Your task to perform on an android device: Open Youtube and go to "Your channel" Image 0: 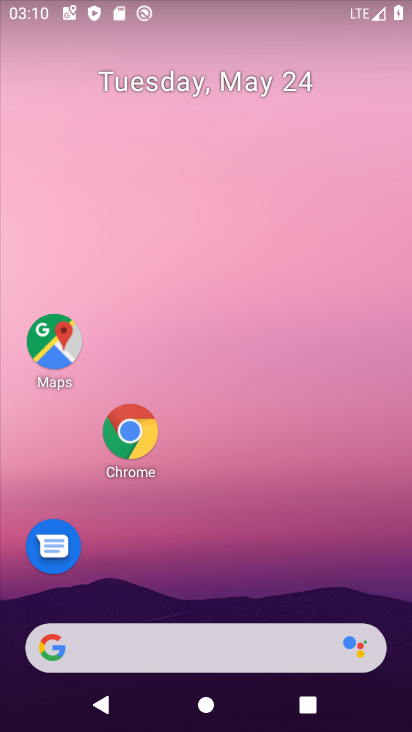
Step 0: drag from (205, 595) to (310, 209)
Your task to perform on an android device: Open Youtube and go to "Your channel" Image 1: 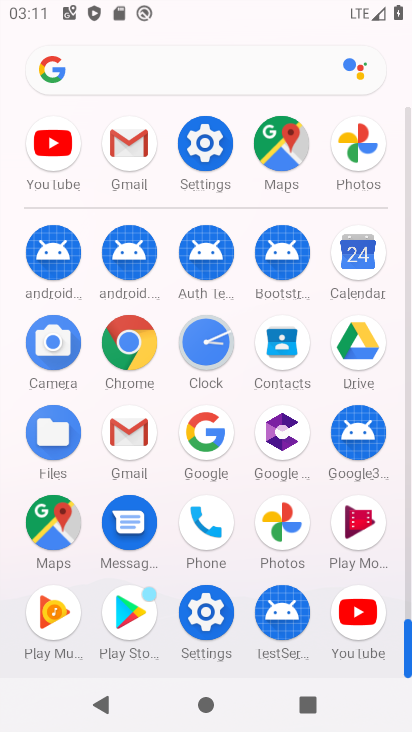
Step 1: click (363, 610)
Your task to perform on an android device: Open Youtube and go to "Your channel" Image 2: 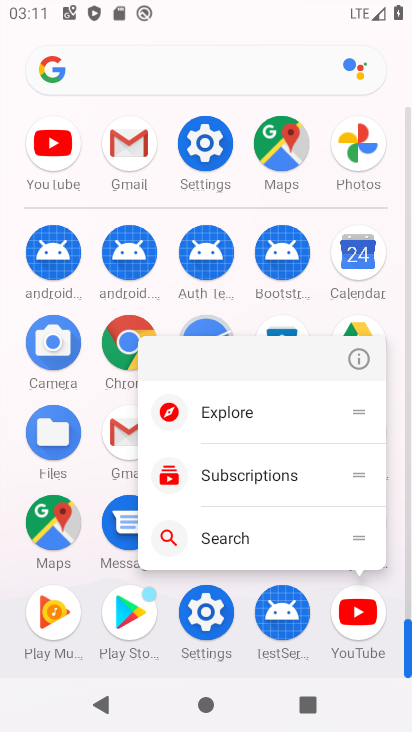
Step 2: click (359, 360)
Your task to perform on an android device: Open Youtube and go to "Your channel" Image 3: 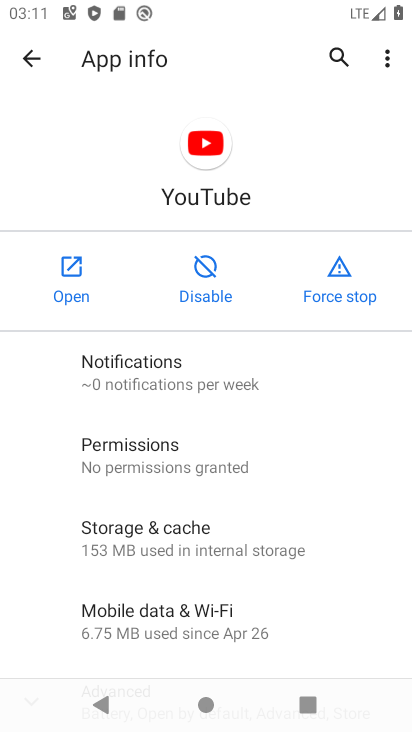
Step 3: click (88, 278)
Your task to perform on an android device: Open Youtube and go to "Your channel" Image 4: 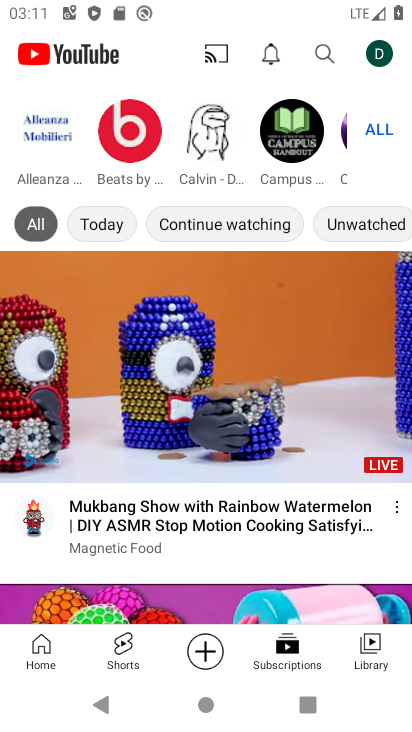
Step 4: click (383, 53)
Your task to perform on an android device: Open Youtube and go to "Your channel" Image 5: 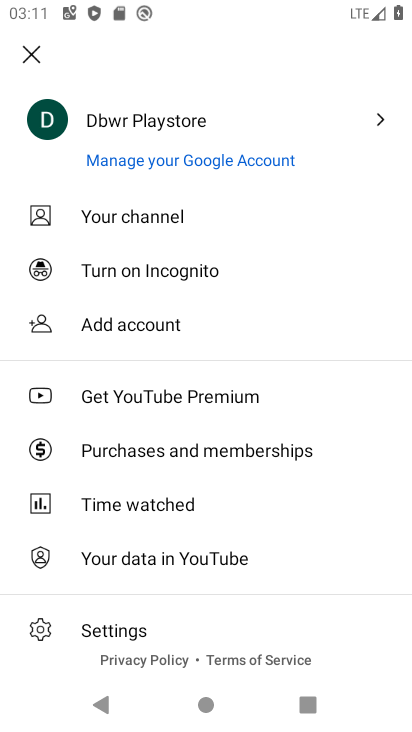
Step 5: task complete